Your task to perform on an android device: Show me productivity apps on the Play Store Image 0: 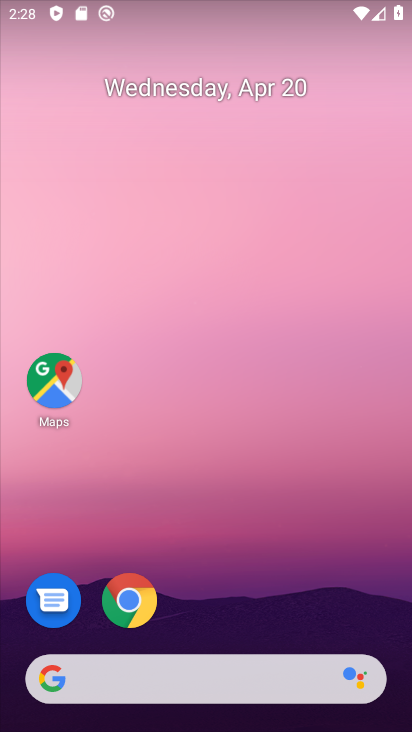
Step 0: drag from (285, 350) to (232, 96)
Your task to perform on an android device: Show me productivity apps on the Play Store Image 1: 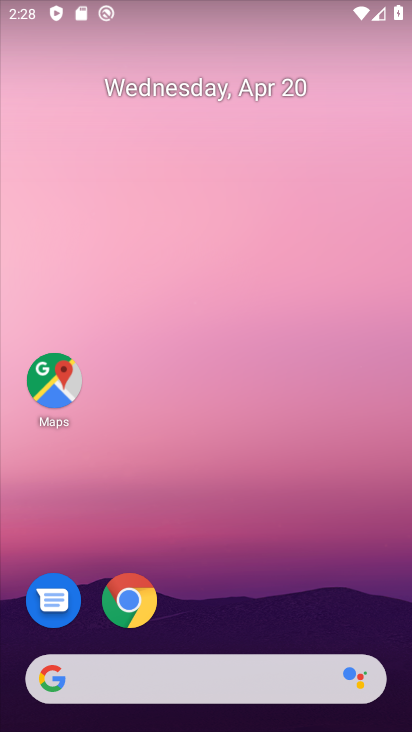
Step 1: drag from (352, 575) to (331, 130)
Your task to perform on an android device: Show me productivity apps on the Play Store Image 2: 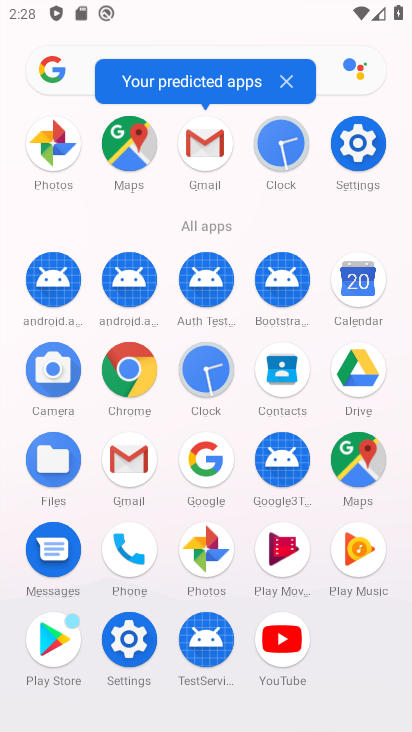
Step 2: click (58, 634)
Your task to perform on an android device: Show me productivity apps on the Play Store Image 3: 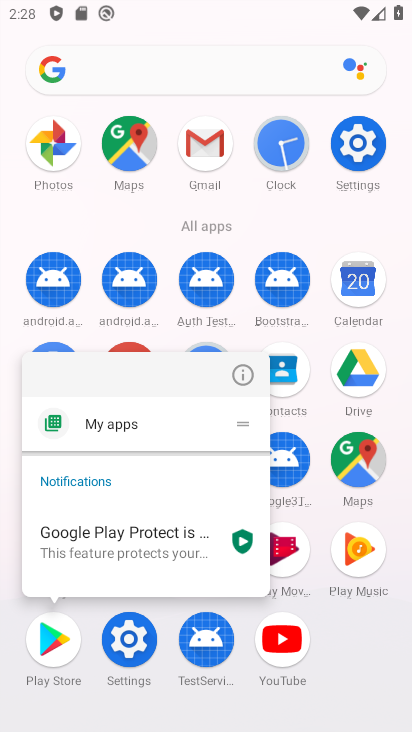
Step 3: click (66, 630)
Your task to perform on an android device: Show me productivity apps on the Play Store Image 4: 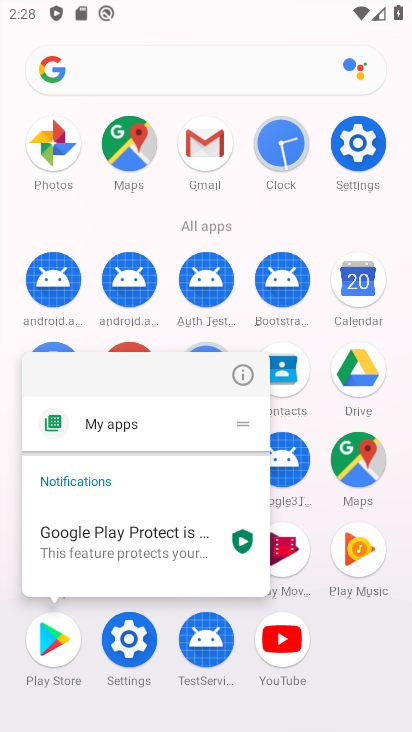
Step 4: click (58, 638)
Your task to perform on an android device: Show me productivity apps on the Play Store Image 5: 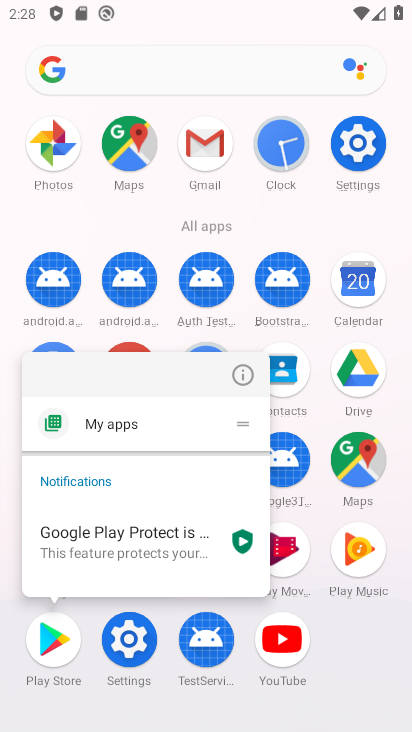
Step 5: click (59, 643)
Your task to perform on an android device: Show me productivity apps on the Play Store Image 6: 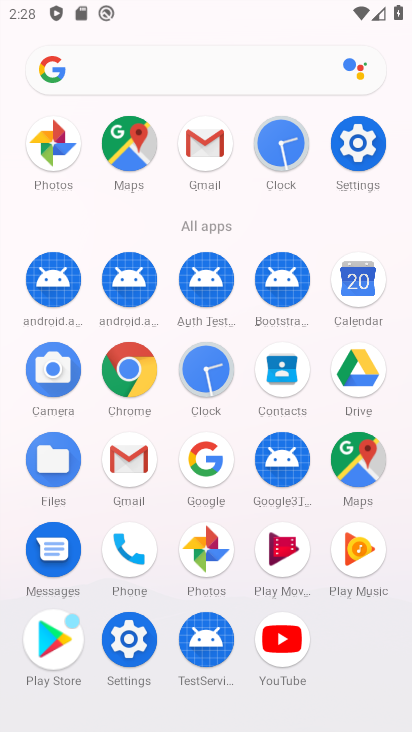
Step 6: click (60, 642)
Your task to perform on an android device: Show me productivity apps on the Play Store Image 7: 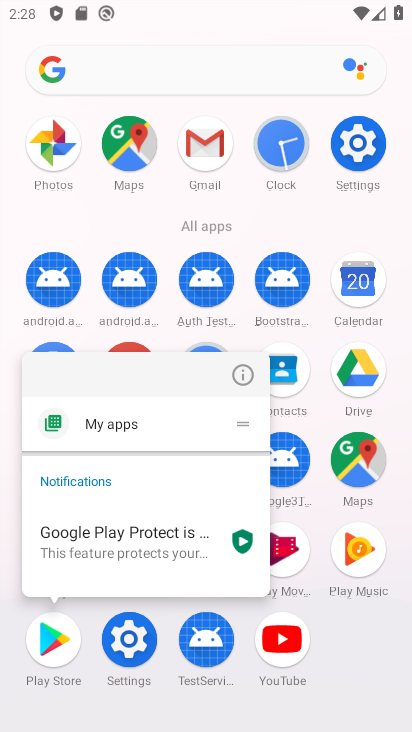
Step 7: click (60, 642)
Your task to perform on an android device: Show me productivity apps on the Play Store Image 8: 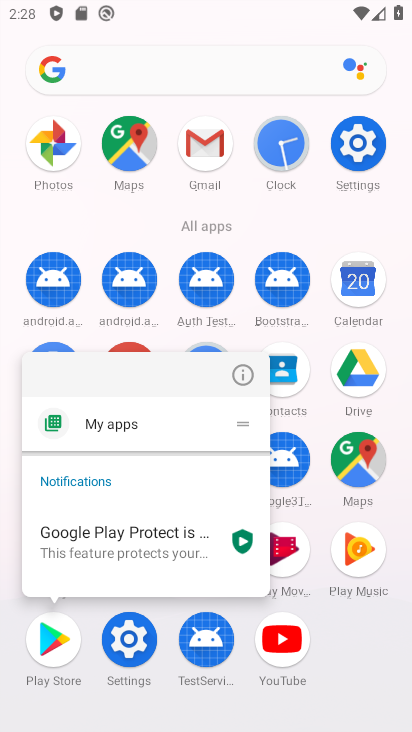
Step 8: click (60, 642)
Your task to perform on an android device: Show me productivity apps on the Play Store Image 9: 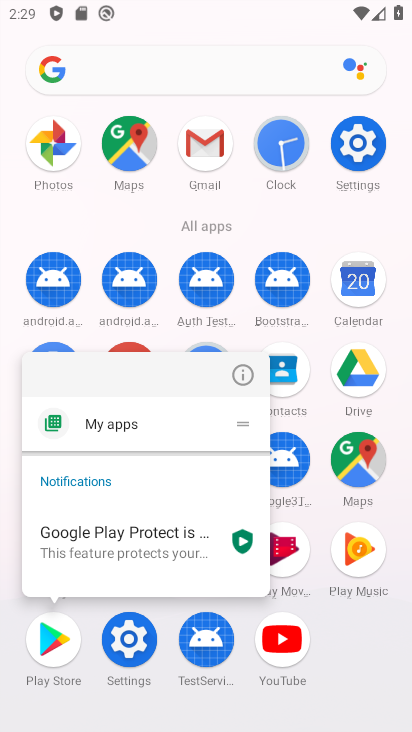
Step 9: click (60, 641)
Your task to perform on an android device: Show me productivity apps on the Play Store Image 10: 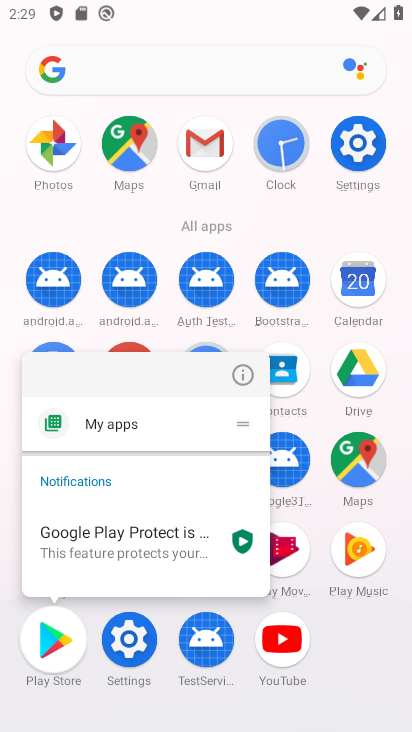
Step 10: click (60, 640)
Your task to perform on an android device: Show me productivity apps on the Play Store Image 11: 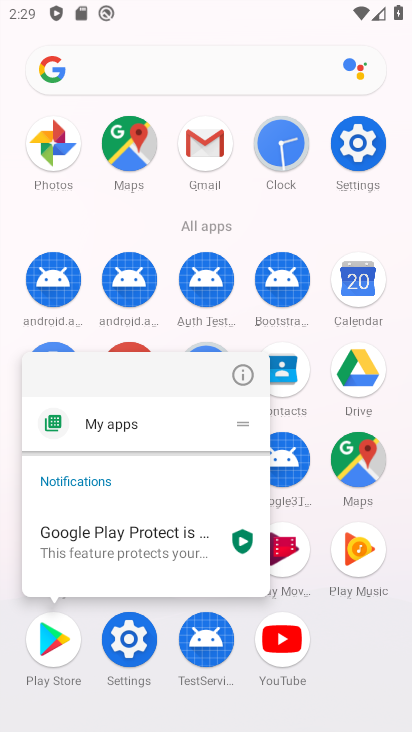
Step 11: click (60, 637)
Your task to perform on an android device: Show me productivity apps on the Play Store Image 12: 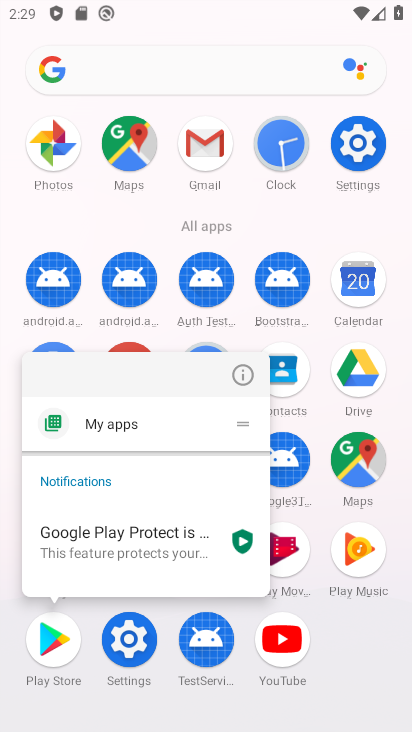
Step 12: click (60, 636)
Your task to perform on an android device: Show me productivity apps on the Play Store Image 13: 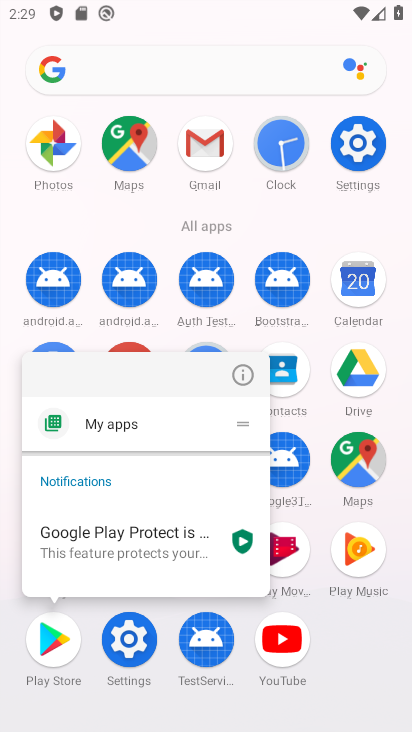
Step 13: click (59, 636)
Your task to perform on an android device: Show me productivity apps on the Play Store Image 14: 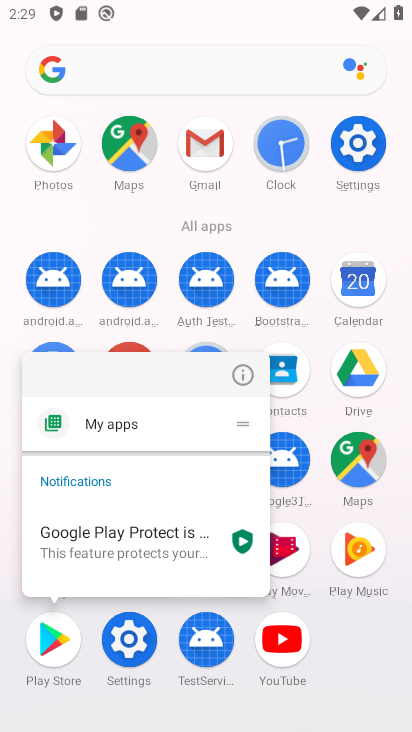
Step 14: click (59, 636)
Your task to perform on an android device: Show me productivity apps on the Play Store Image 15: 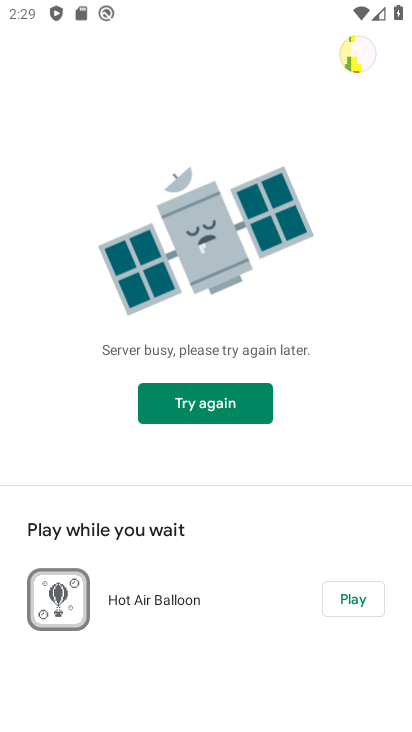
Step 15: click (262, 402)
Your task to perform on an android device: Show me productivity apps on the Play Store Image 16: 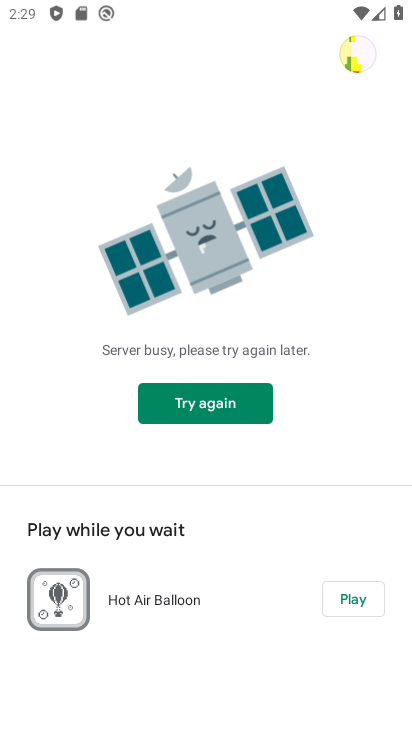
Step 16: task complete